Your task to perform on an android device: Search for sushi restaurants on Maps Image 0: 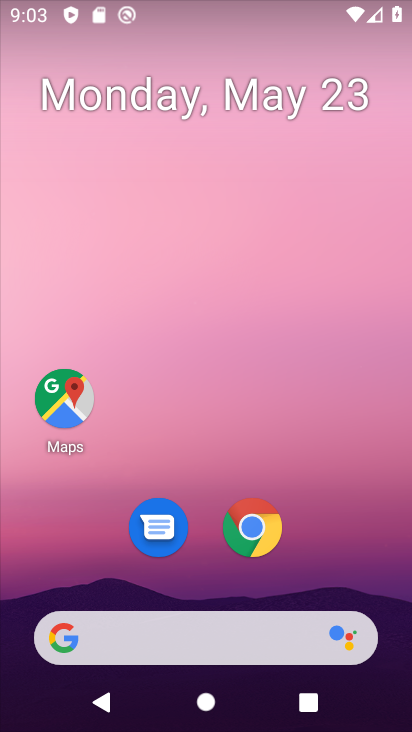
Step 0: click (58, 412)
Your task to perform on an android device: Search for sushi restaurants on Maps Image 1: 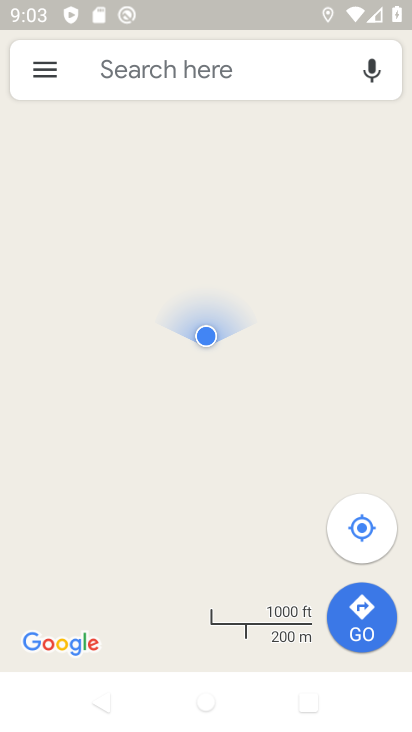
Step 1: click (232, 63)
Your task to perform on an android device: Search for sushi restaurants on Maps Image 2: 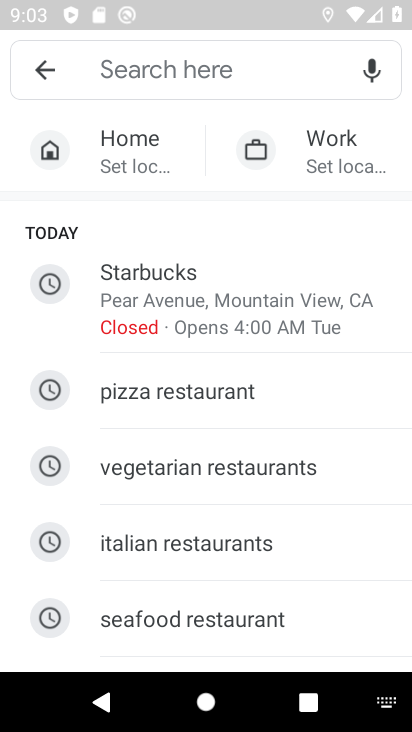
Step 2: click (193, 555)
Your task to perform on an android device: Search for sushi restaurants on Maps Image 3: 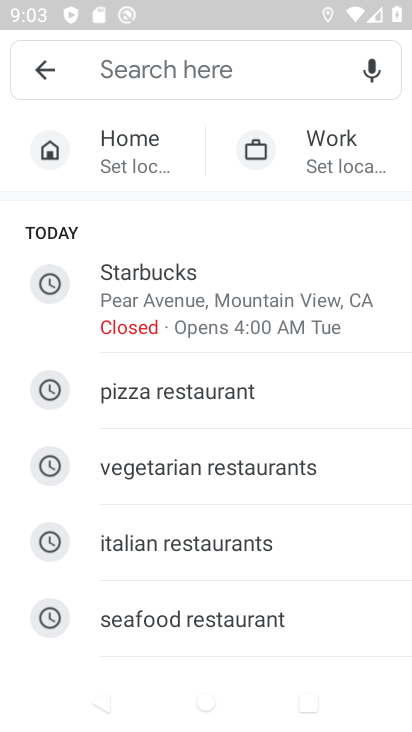
Step 3: click (217, 56)
Your task to perform on an android device: Search for sushi restaurants on Maps Image 4: 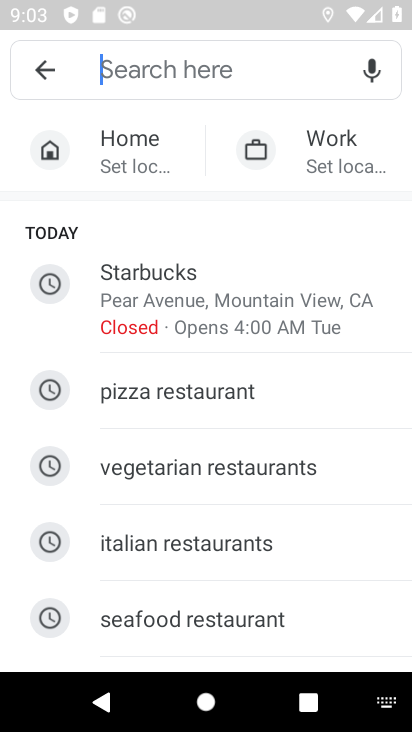
Step 4: type "sushi restaurants"
Your task to perform on an android device: Search for sushi restaurants on Maps Image 5: 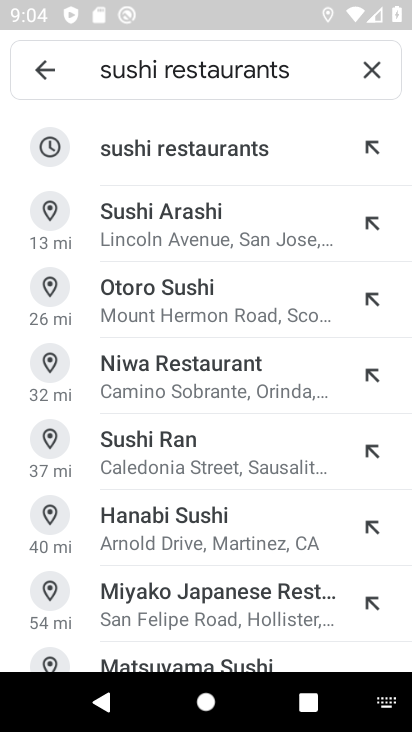
Step 5: click (262, 144)
Your task to perform on an android device: Search for sushi restaurants on Maps Image 6: 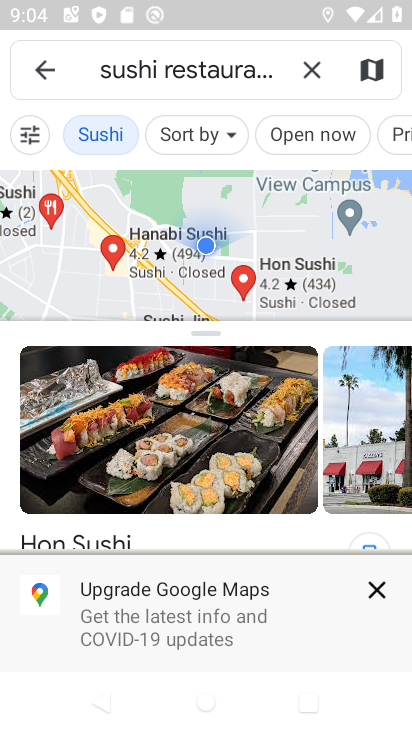
Step 6: task complete